Your task to perform on an android device: Show me productivity apps on the Play Store Image 0: 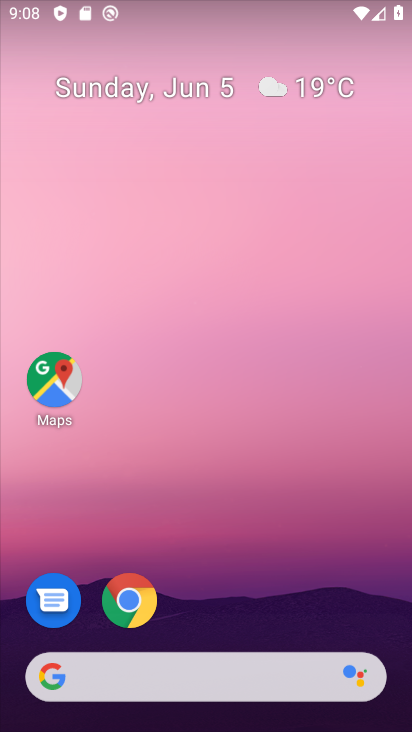
Step 0: task complete